Your task to perform on an android device: Go to Reddit.com Image 0: 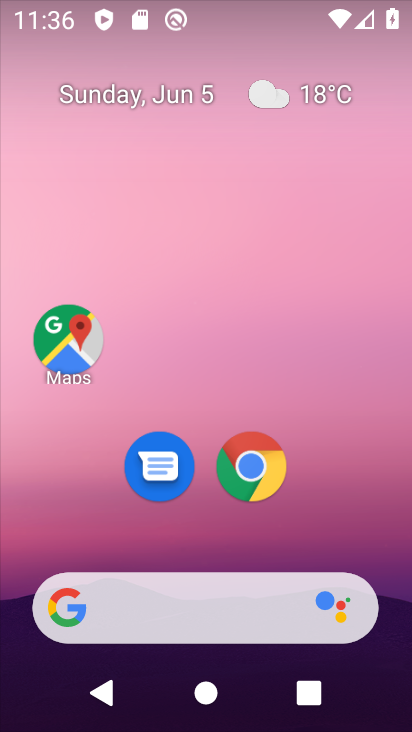
Step 0: drag from (365, 540) to (296, 55)
Your task to perform on an android device: Go to Reddit.com Image 1: 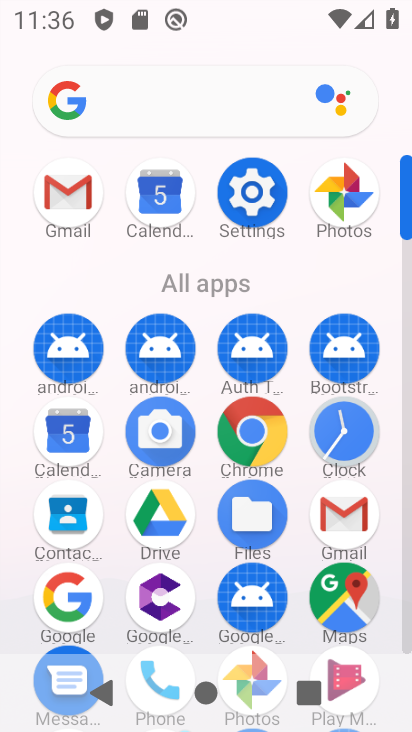
Step 1: drag from (11, 619) to (16, 297)
Your task to perform on an android device: Go to Reddit.com Image 2: 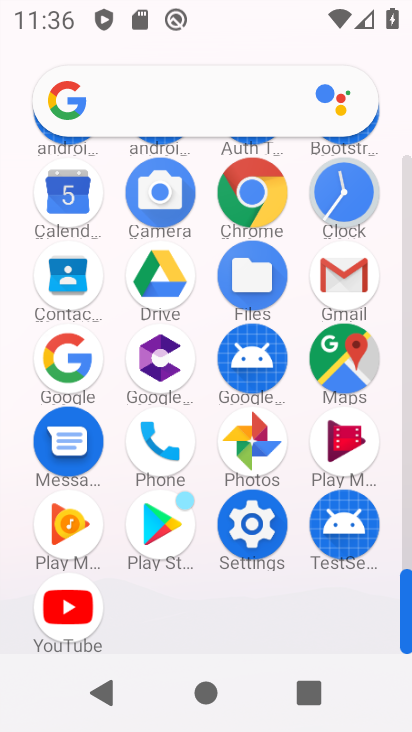
Step 2: click (249, 191)
Your task to perform on an android device: Go to Reddit.com Image 3: 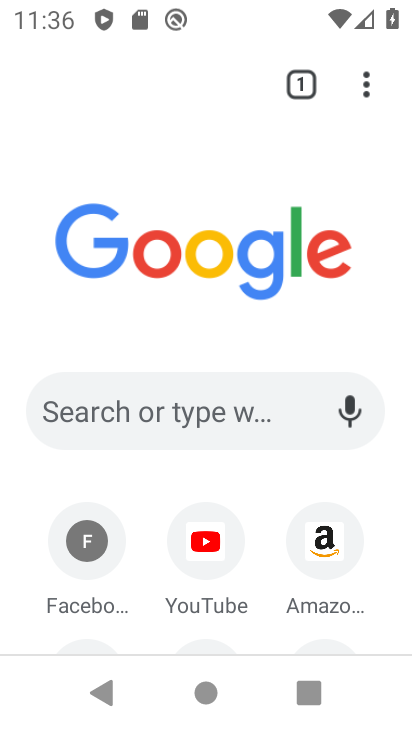
Step 3: drag from (47, 627) to (25, 319)
Your task to perform on an android device: Go to Reddit.com Image 4: 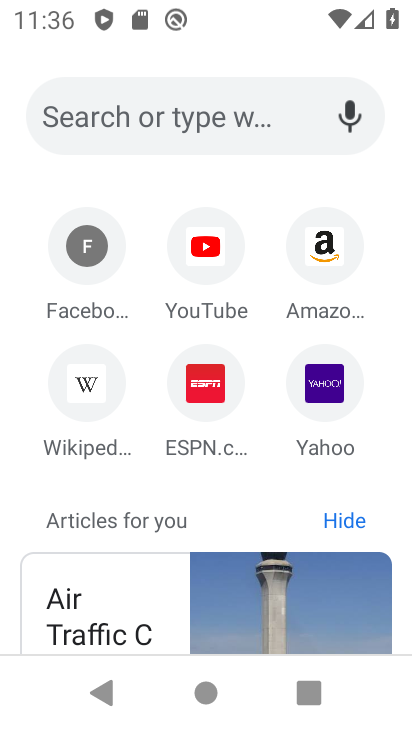
Step 4: click (251, 110)
Your task to perform on an android device: Go to Reddit.com Image 5: 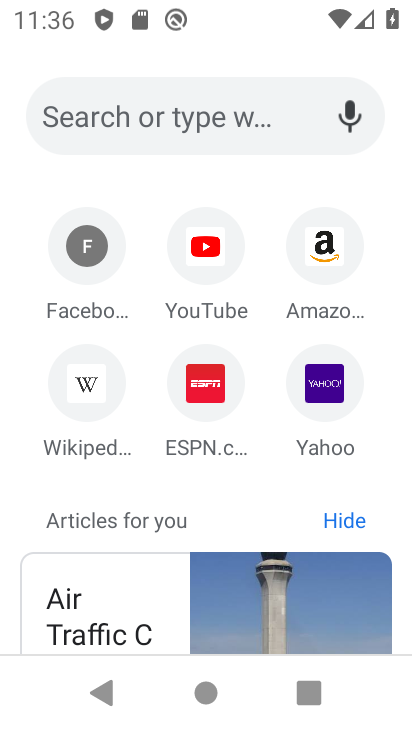
Step 5: click (125, 119)
Your task to perform on an android device: Go to Reddit.com Image 6: 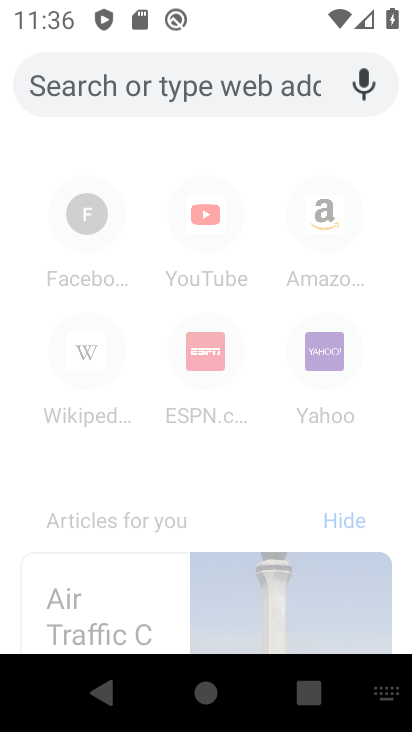
Step 6: type " Reddit.com"
Your task to perform on an android device: Go to Reddit.com Image 7: 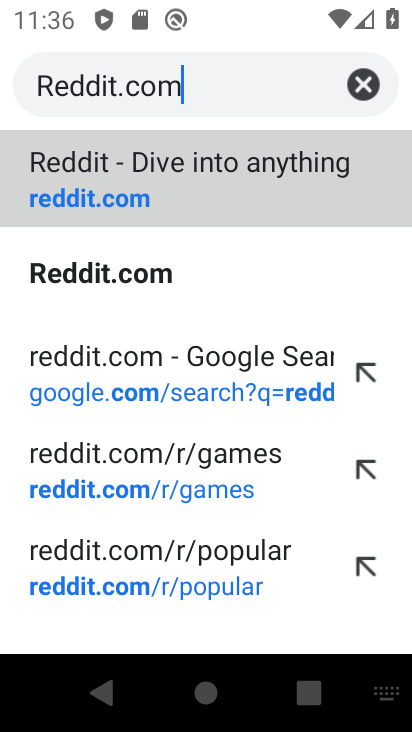
Step 7: type ""
Your task to perform on an android device: Go to Reddit.com Image 8: 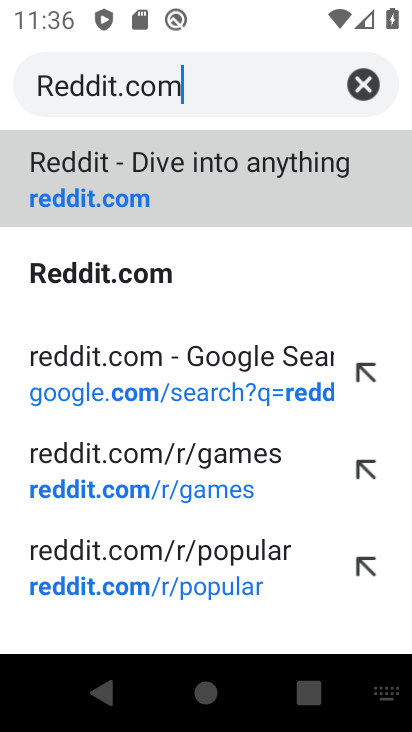
Step 8: click (193, 194)
Your task to perform on an android device: Go to Reddit.com Image 9: 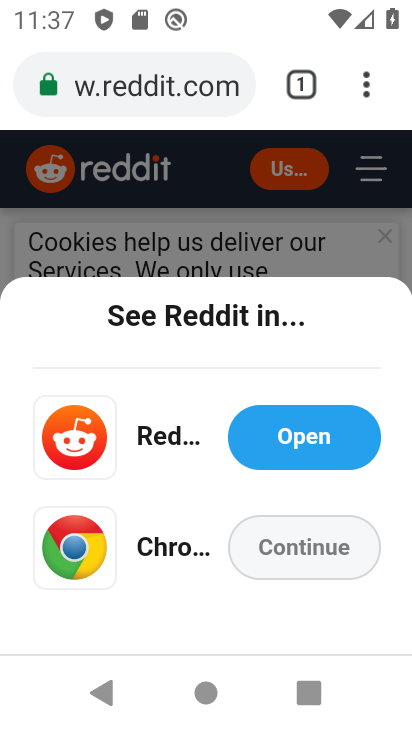
Step 9: task complete